Your task to perform on an android device: Search for 24"x36" picture frame on Home Depot. Image 0: 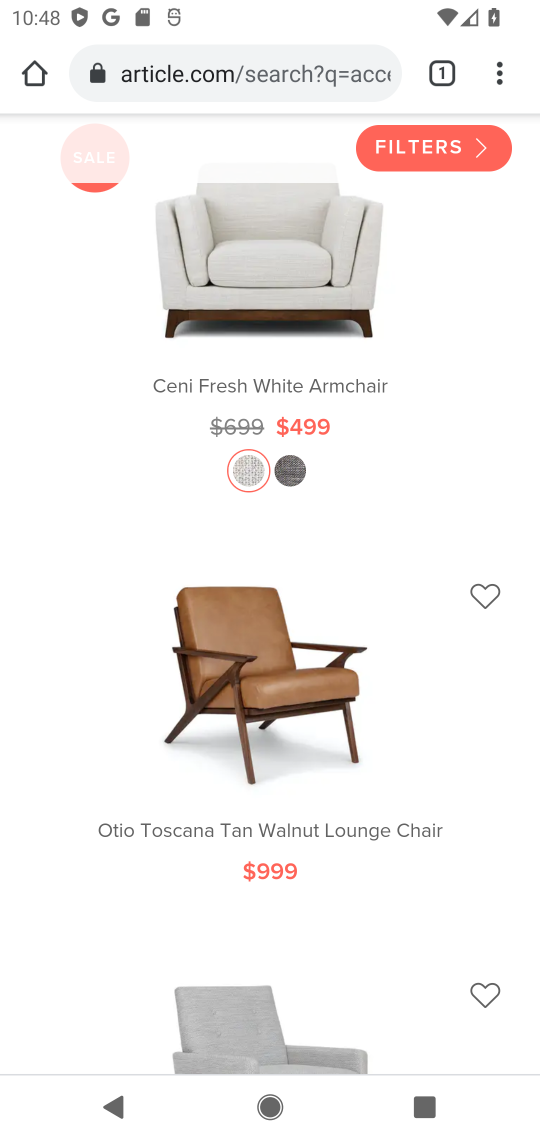
Step 0: click (323, 92)
Your task to perform on an android device: Search for 24"x36" picture frame on Home Depot. Image 1: 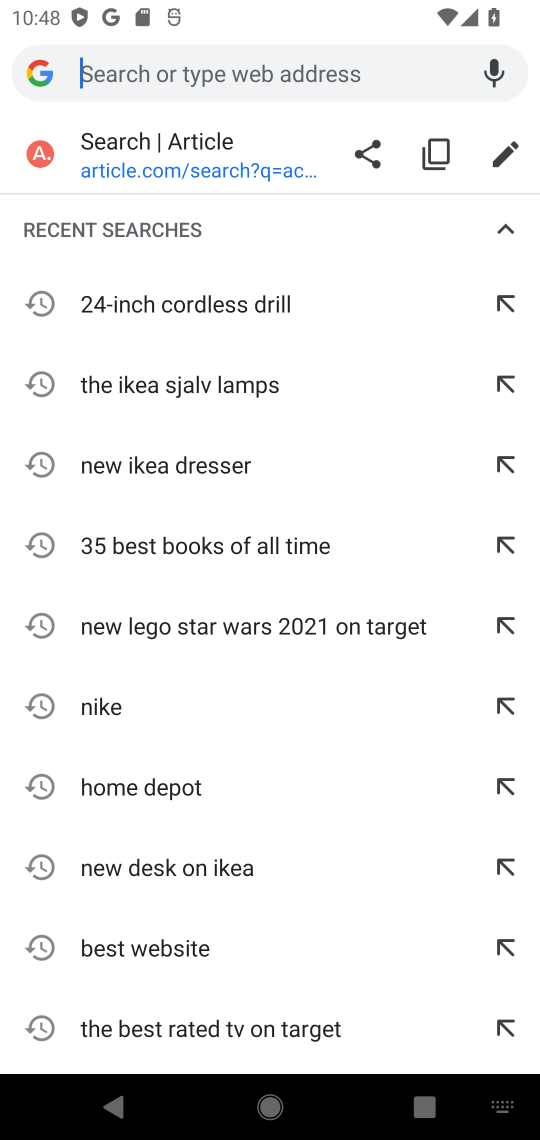
Step 1: type "home depot"
Your task to perform on an android device: Search for 24"x36" picture frame on Home Depot. Image 2: 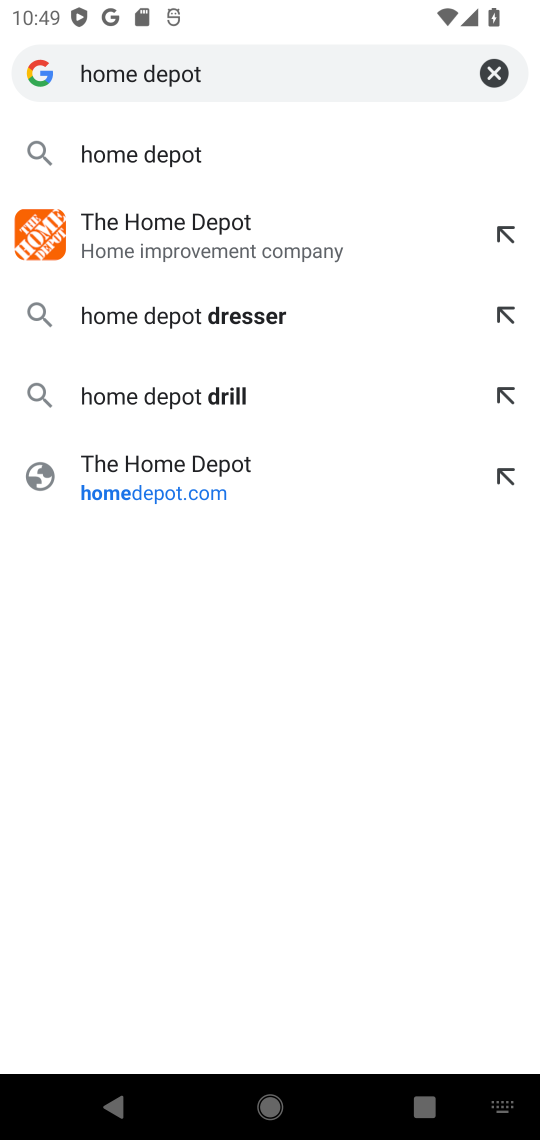
Step 2: press enter
Your task to perform on an android device: Search for 24"x36" picture frame on Home Depot. Image 3: 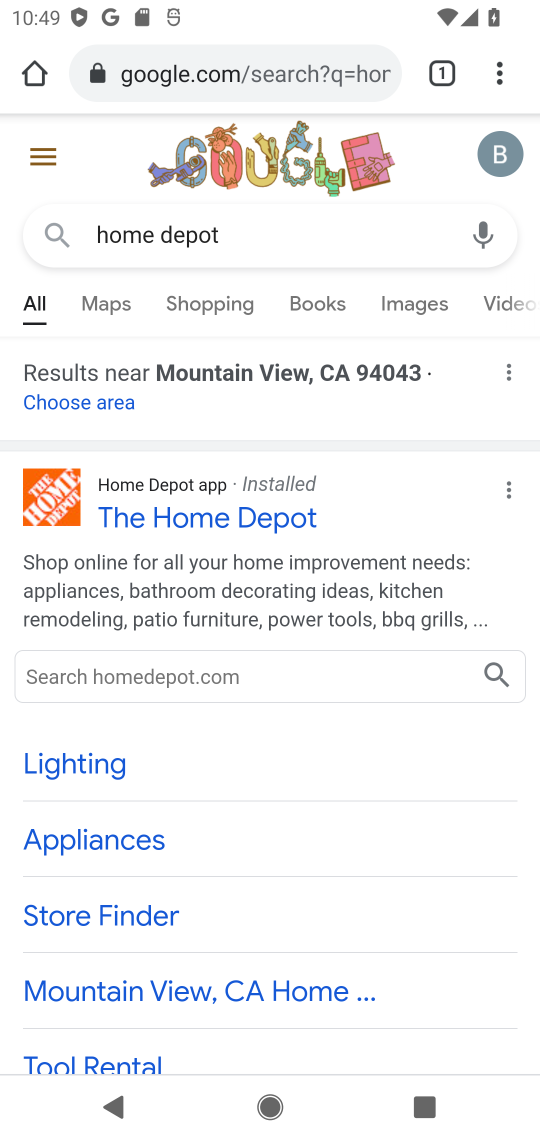
Step 3: click (166, 505)
Your task to perform on an android device: Search for 24"x36" picture frame on Home Depot. Image 4: 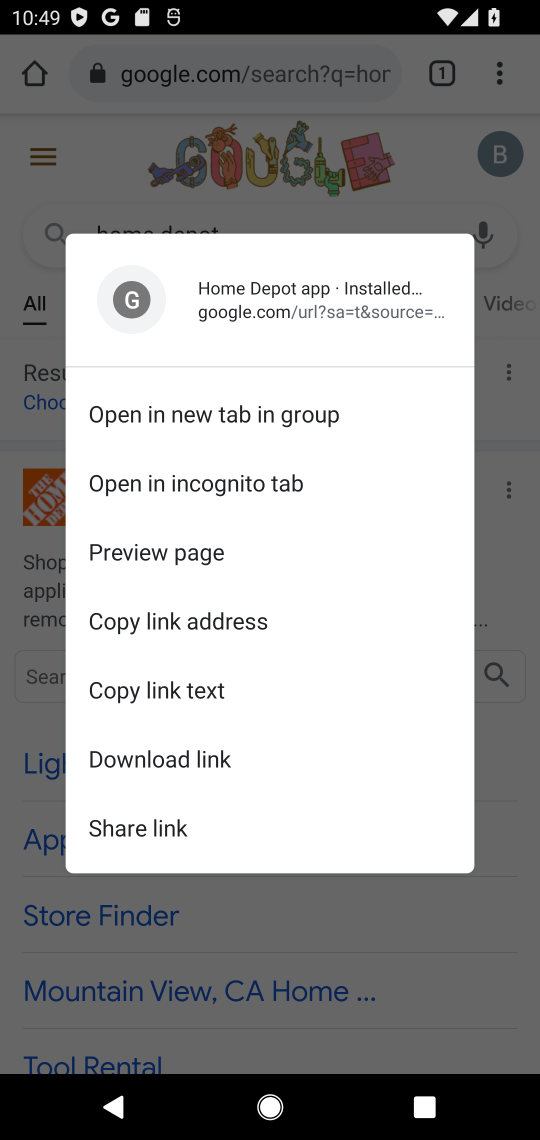
Step 4: click (430, 1008)
Your task to perform on an android device: Search for 24"x36" picture frame on Home Depot. Image 5: 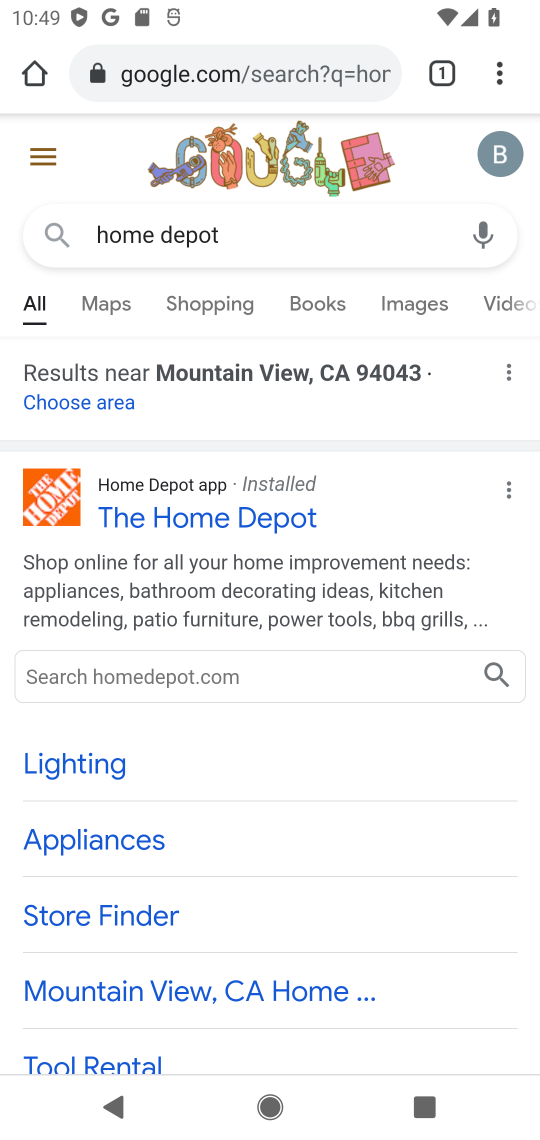
Step 5: click (210, 523)
Your task to perform on an android device: Search for 24"x36" picture frame on Home Depot. Image 6: 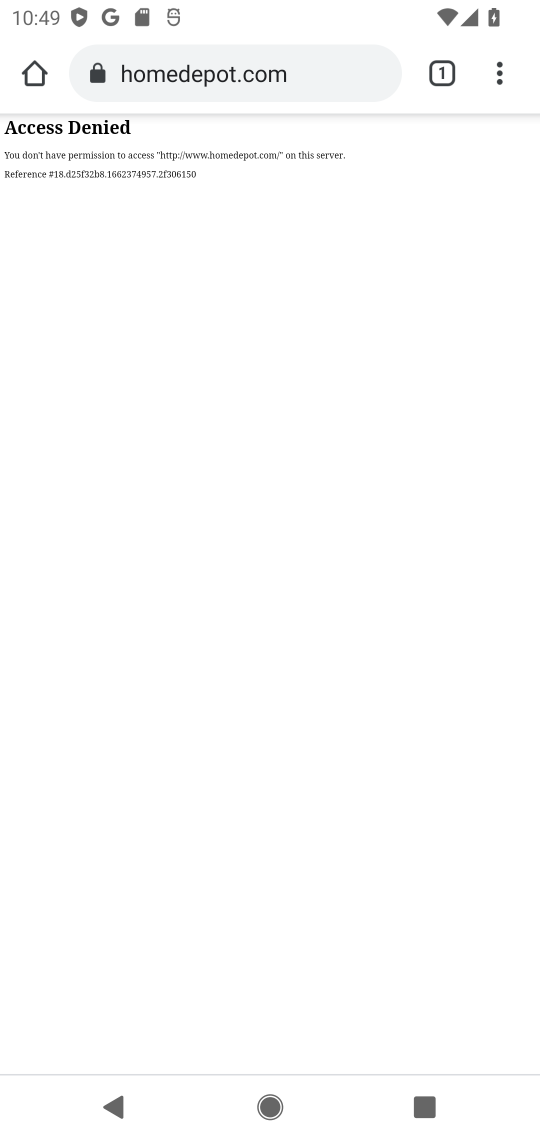
Step 6: click (210, 523)
Your task to perform on an android device: Search for 24"x36" picture frame on Home Depot. Image 7: 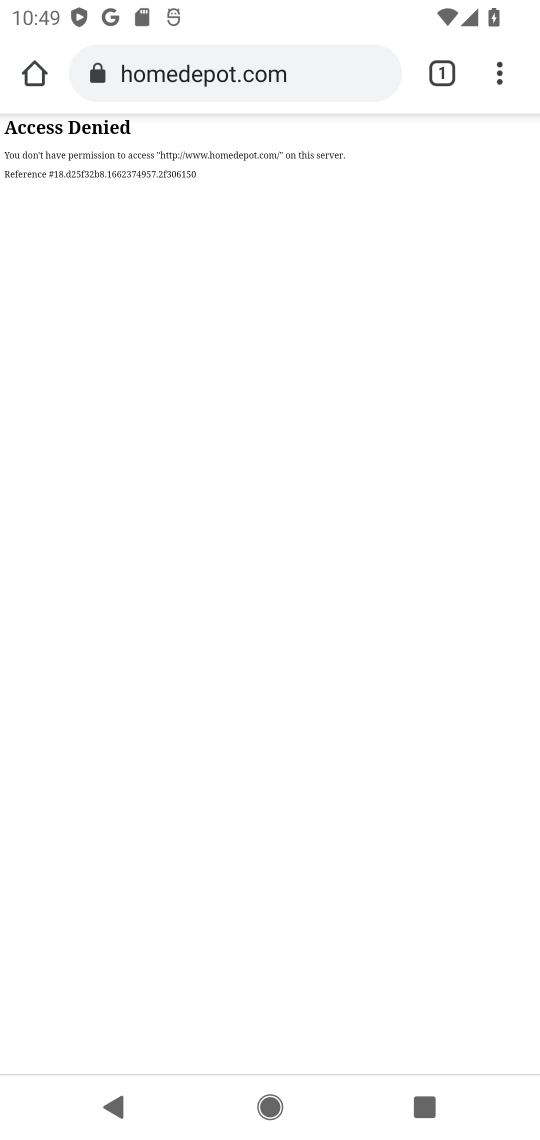
Step 7: click (210, 523)
Your task to perform on an android device: Search for 24"x36" picture frame on Home Depot. Image 8: 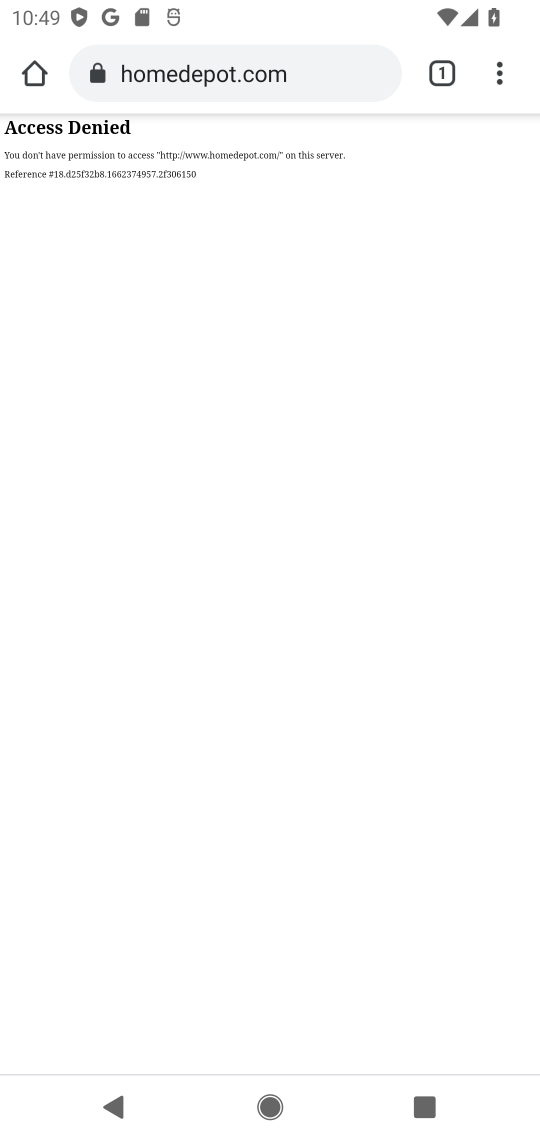
Step 8: press back button
Your task to perform on an android device: Search for 24"x36" picture frame on Home Depot. Image 9: 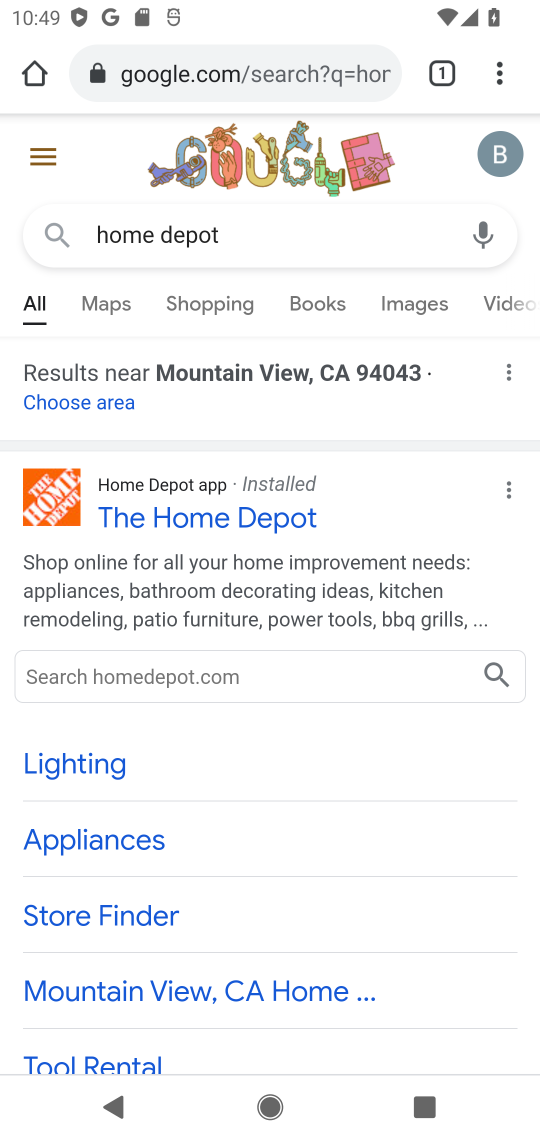
Step 9: click (146, 515)
Your task to perform on an android device: Search for 24"x36" picture frame on Home Depot. Image 10: 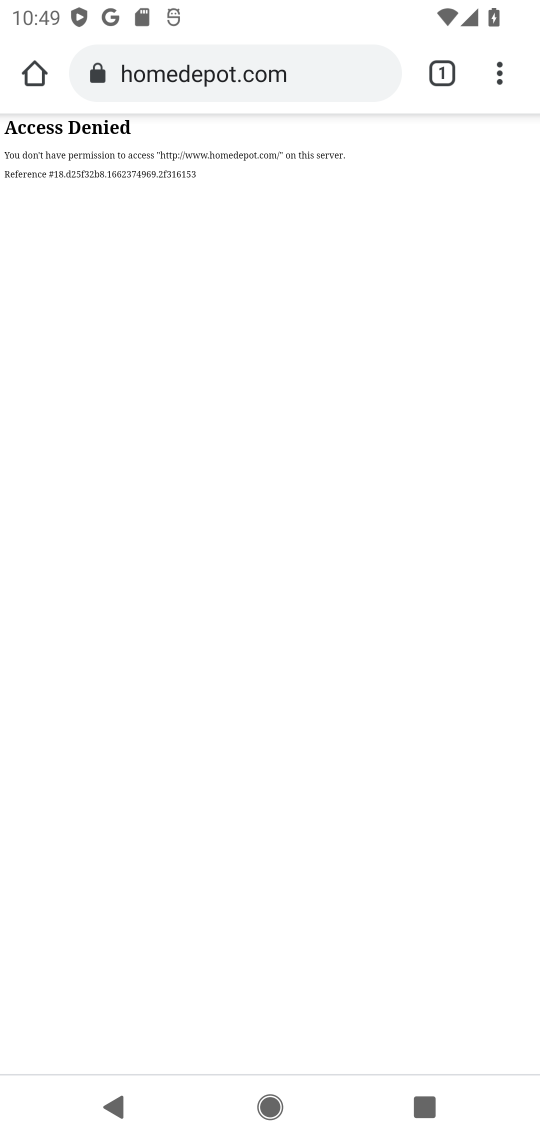
Step 10: press back button
Your task to perform on an android device: Search for 24"x36" picture frame on Home Depot. Image 11: 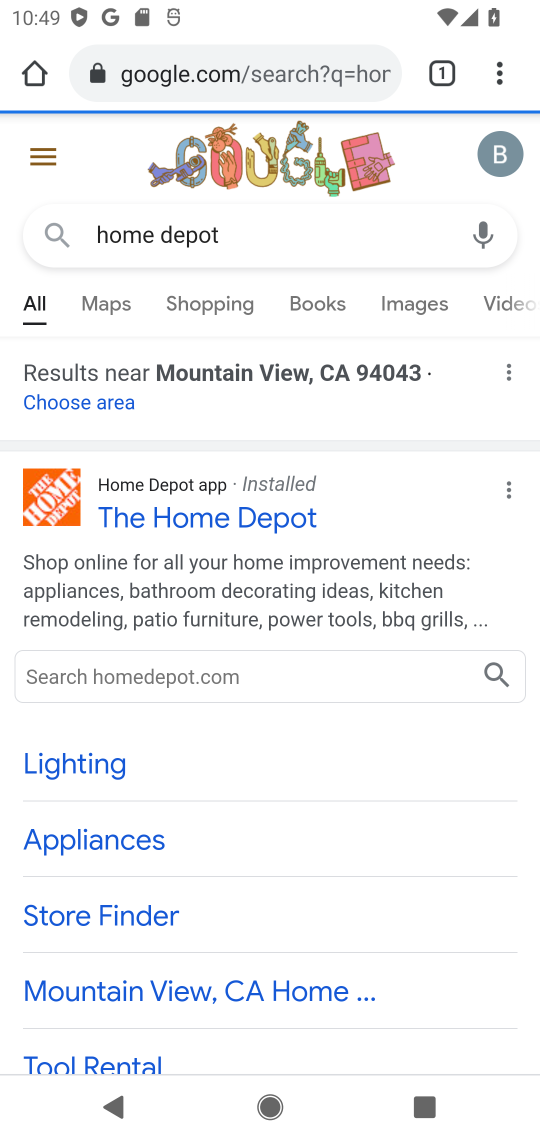
Step 11: click (273, 518)
Your task to perform on an android device: Search for 24"x36" picture frame on Home Depot. Image 12: 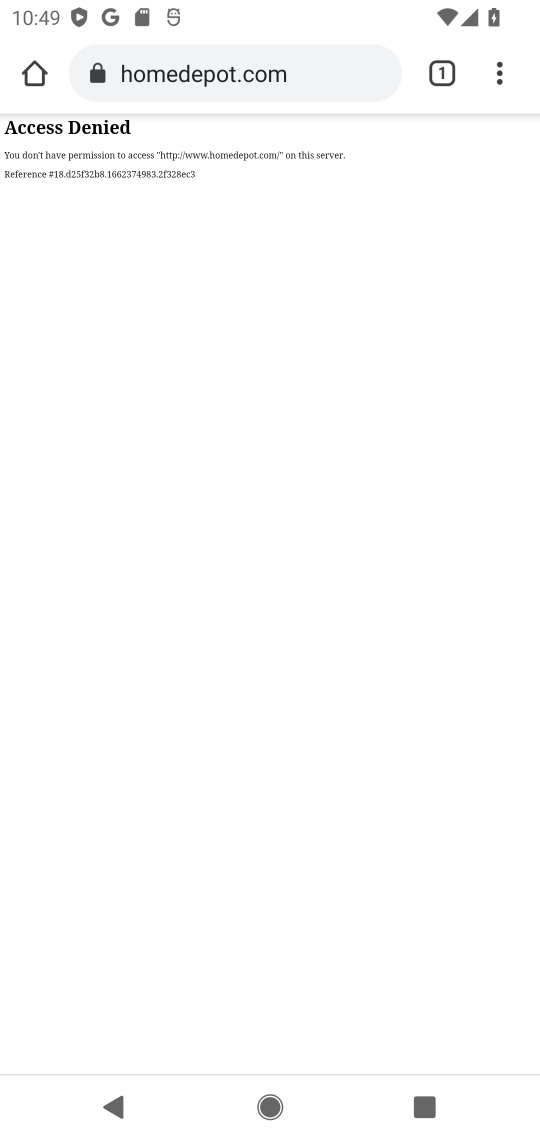
Step 12: task complete